Your task to perform on an android device: Show me recent news Image 0: 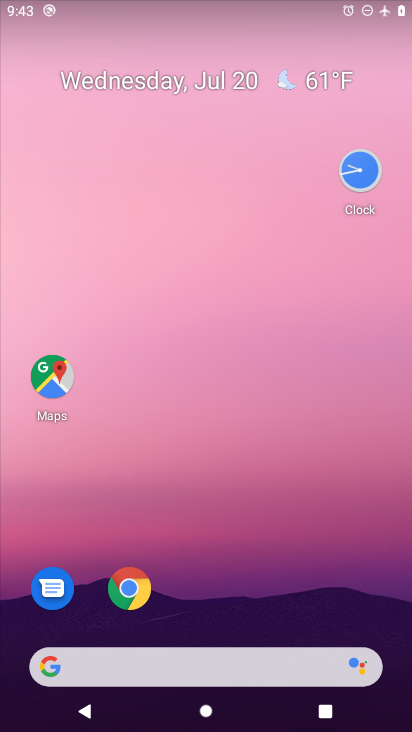
Step 0: click (95, 671)
Your task to perform on an android device: Show me recent news Image 1: 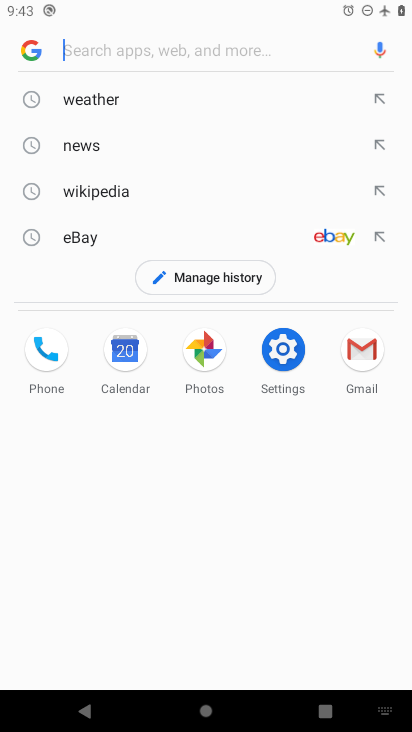
Step 1: type "recent news"
Your task to perform on an android device: Show me recent news Image 2: 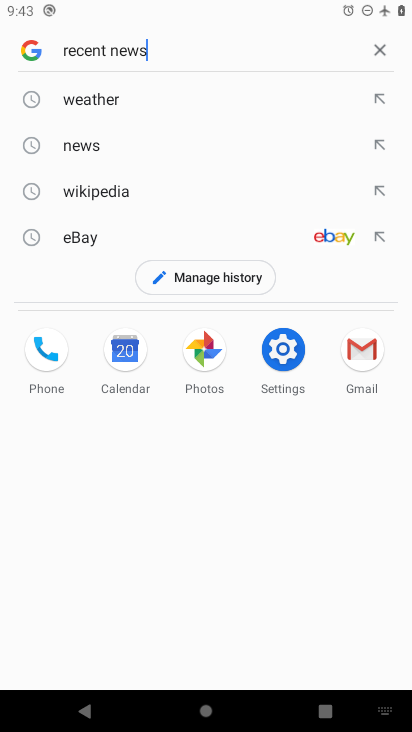
Step 2: type ""
Your task to perform on an android device: Show me recent news Image 3: 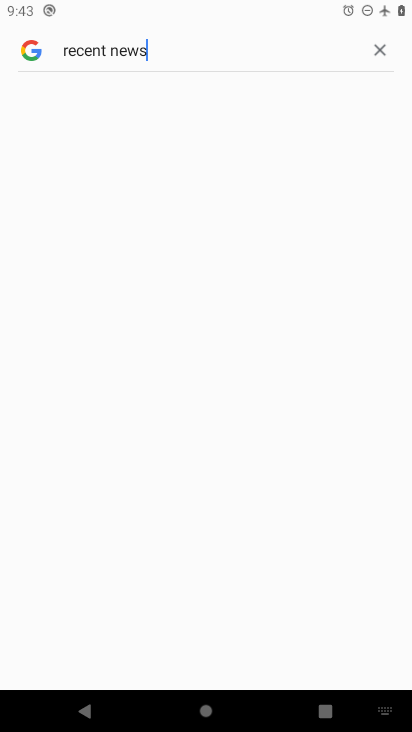
Step 3: type ""
Your task to perform on an android device: Show me recent news Image 4: 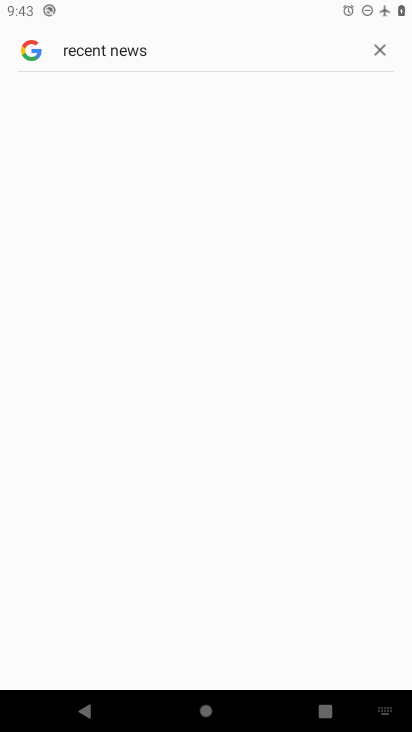
Step 4: task complete